Your task to perform on an android device: Go to ESPN.com Image 0: 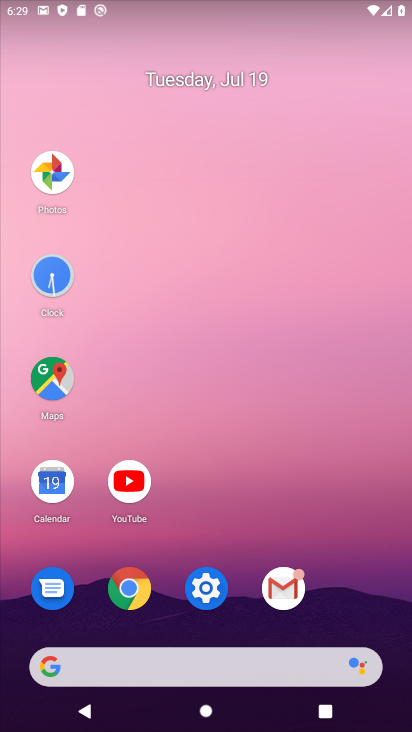
Step 0: click (129, 593)
Your task to perform on an android device: Go to ESPN.com Image 1: 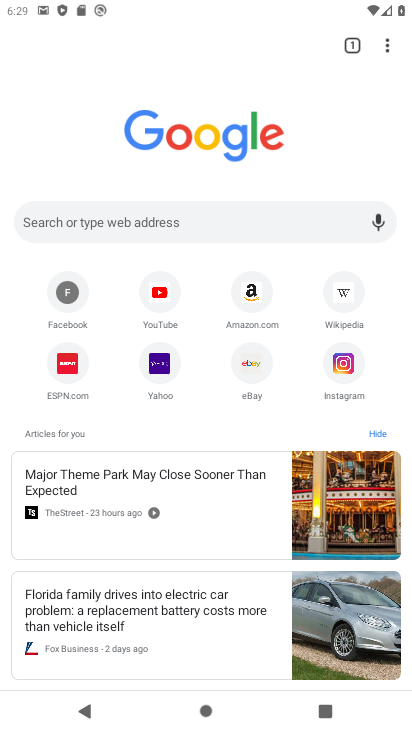
Step 1: click (65, 366)
Your task to perform on an android device: Go to ESPN.com Image 2: 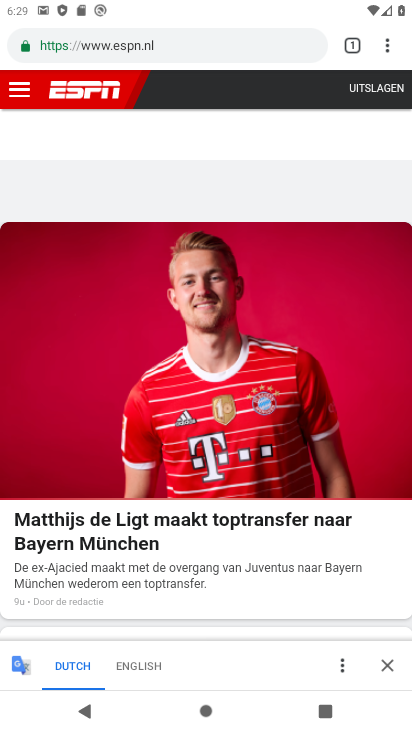
Step 2: task complete